Your task to perform on an android device: Do I have any events today? Image 0: 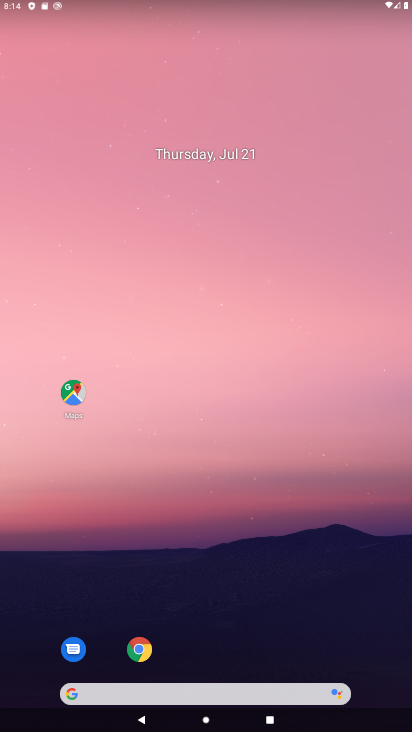
Step 0: drag from (185, 666) to (221, 102)
Your task to perform on an android device: Do I have any events today? Image 1: 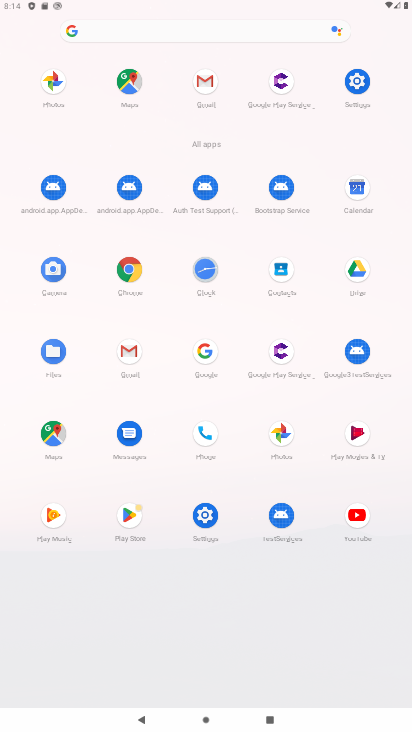
Step 1: click (358, 187)
Your task to perform on an android device: Do I have any events today? Image 2: 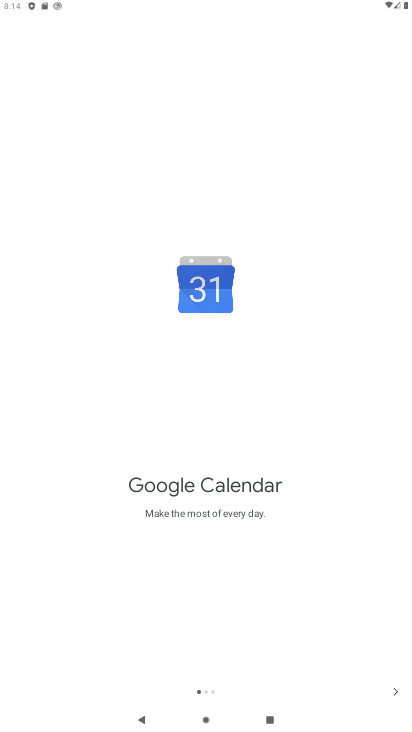
Step 2: click (392, 689)
Your task to perform on an android device: Do I have any events today? Image 3: 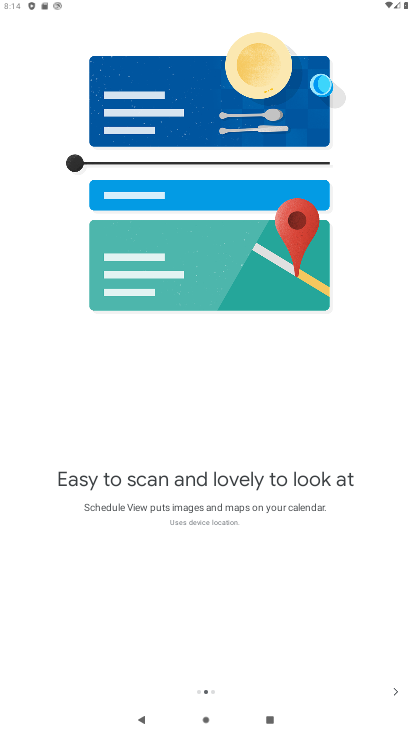
Step 3: click (396, 691)
Your task to perform on an android device: Do I have any events today? Image 4: 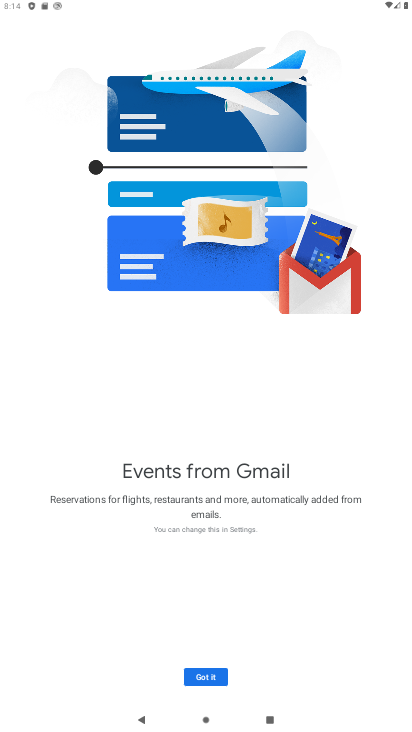
Step 4: click (199, 670)
Your task to perform on an android device: Do I have any events today? Image 5: 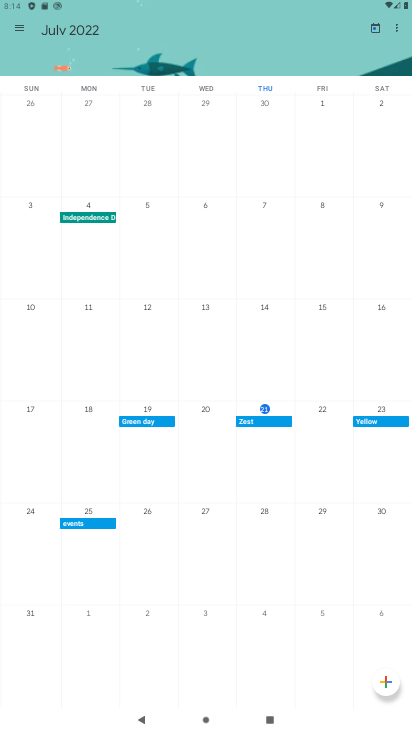
Step 5: click (266, 404)
Your task to perform on an android device: Do I have any events today? Image 6: 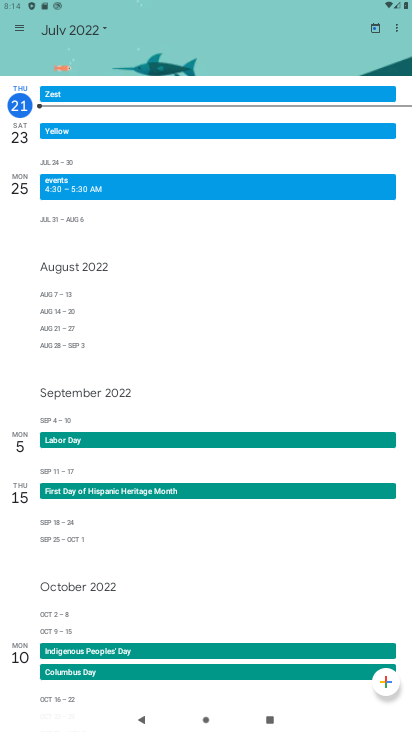
Step 6: task complete